Your task to perform on an android device: move an email to a new category in the gmail app Image 0: 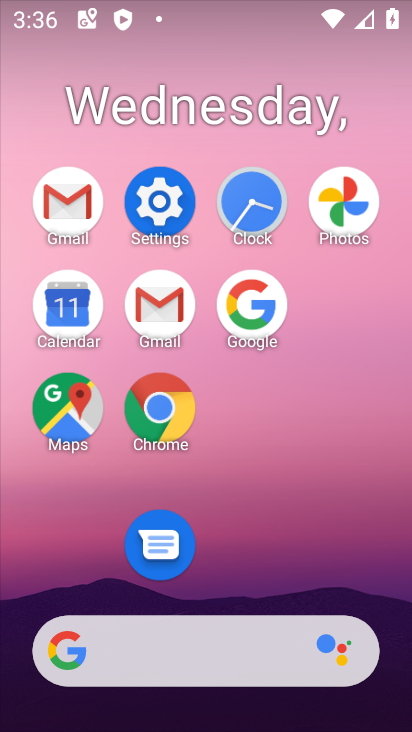
Step 0: click (172, 289)
Your task to perform on an android device: move an email to a new category in the gmail app Image 1: 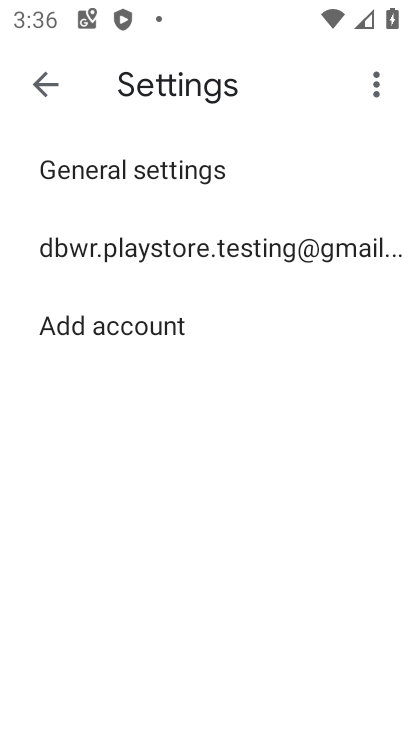
Step 1: click (55, 78)
Your task to perform on an android device: move an email to a new category in the gmail app Image 2: 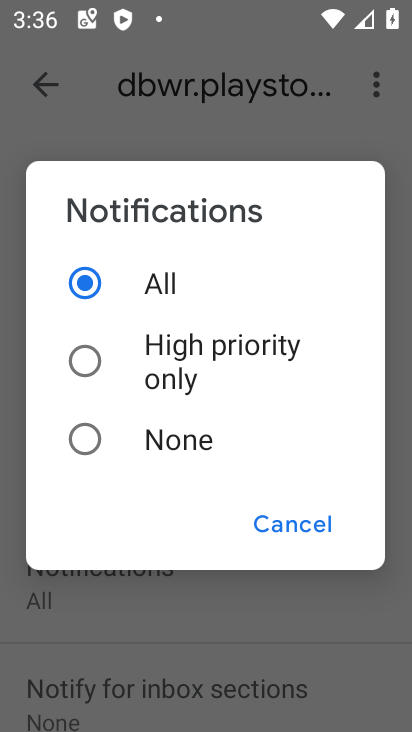
Step 2: click (287, 520)
Your task to perform on an android device: move an email to a new category in the gmail app Image 3: 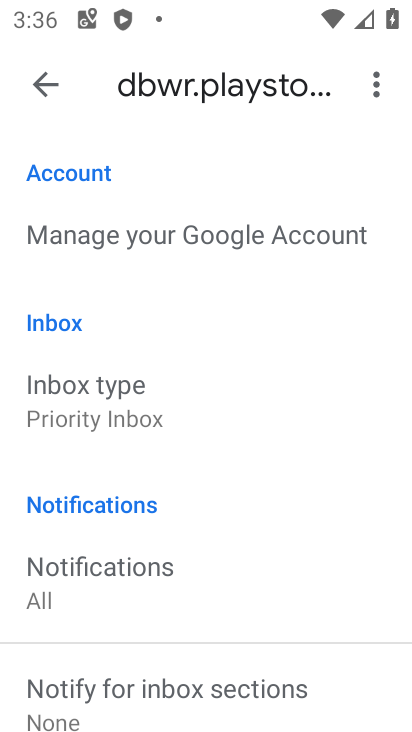
Step 3: click (65, 80)
Your task to perform on an android device: move an email to a new category in the gmail app Image 4: 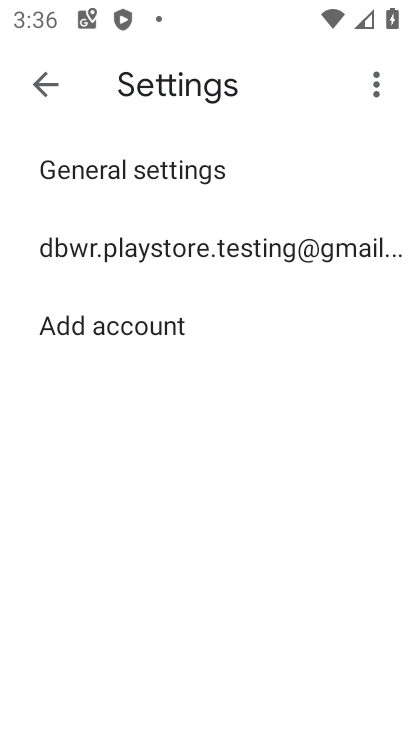
Step 4: click (58, 81)
Your task to perform on an android device: move an email to a new category in the gmail app Image 5: 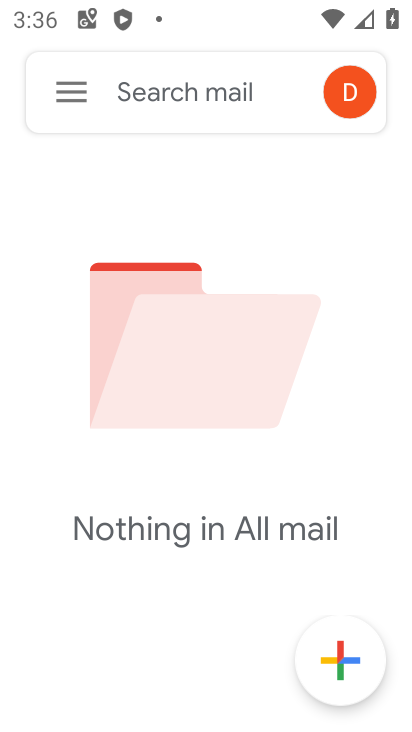
Step 5: click (58, 81)
Your task to perform on an android device: move an email to a new category in the gmail app Image 6: 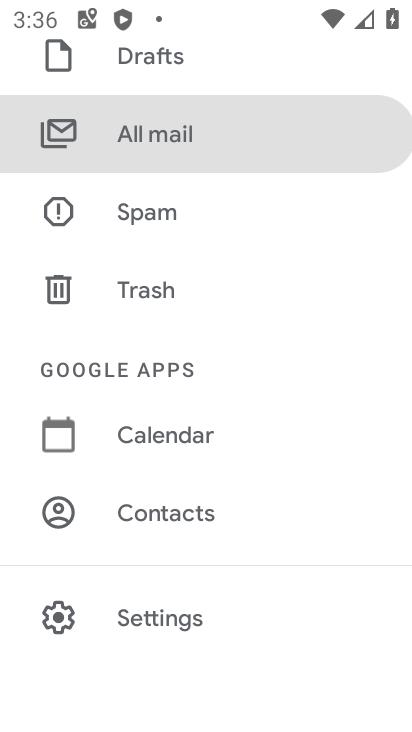
Step 6: click (224, 126)
Your task to perform on an android device: move an email to a new category in the gmail app Image 7: 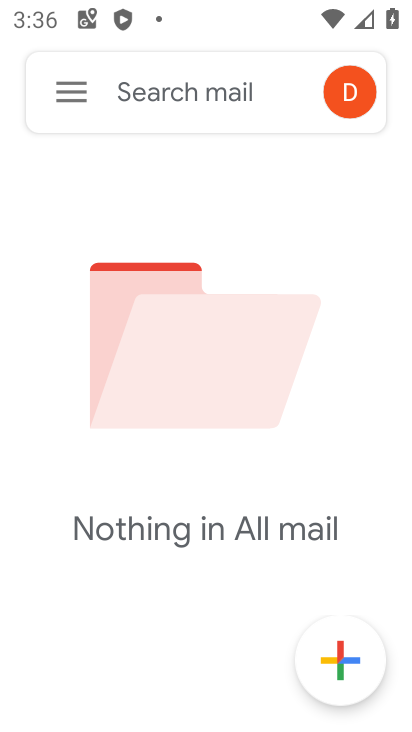
Step 7: task complete